Your task to perform on an android device: Show me recent news Image 0: 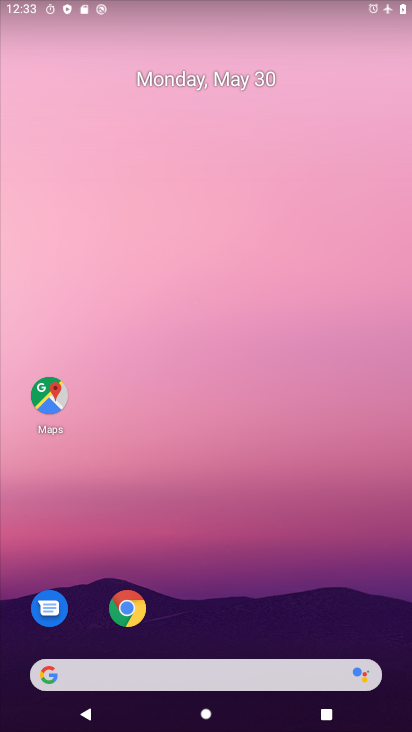
Step 0: drag from (198, 643) to (176, 10)
Your task to perform on an android device: Show me recent news Image 1: 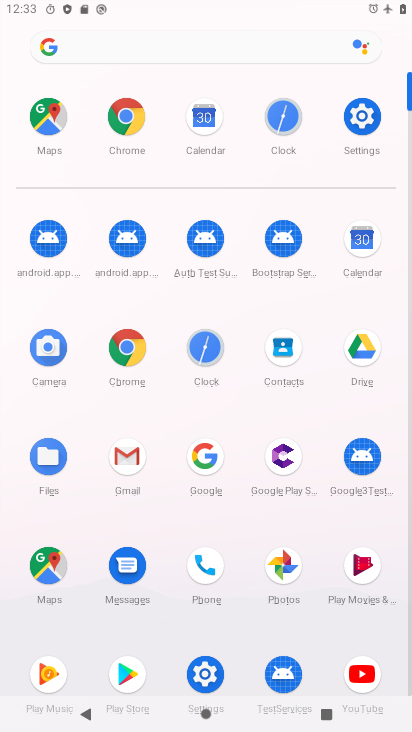
Step 1: click (180, 461)
Your task to perform on an android device: Show me recent news Image 2: 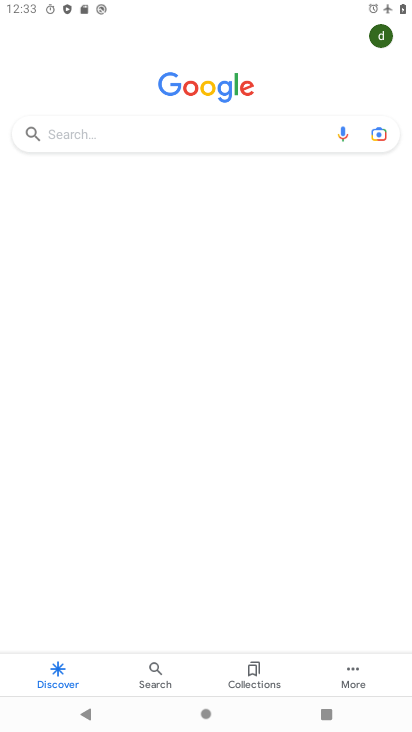
Step 2: click (187, 142)
Your task to perform on an android device: Show me recent news Image 3: 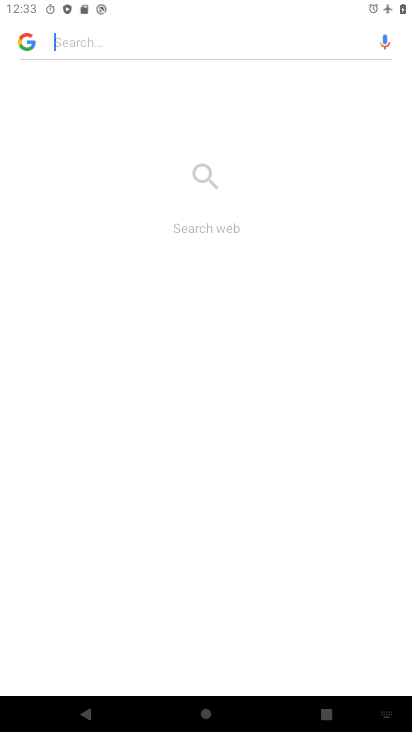
Step 3: task complete